Your task to perform on an android device: Go to accessibility settings Image 0: 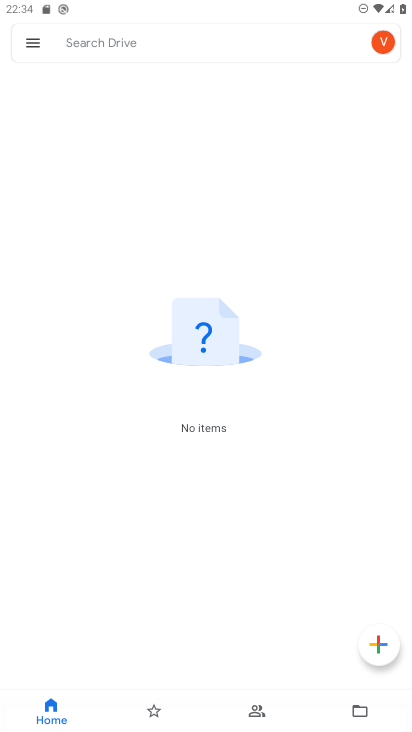
Step 0: press home button
Your task to perform on an android device: Go to accessibility settings Image 1: 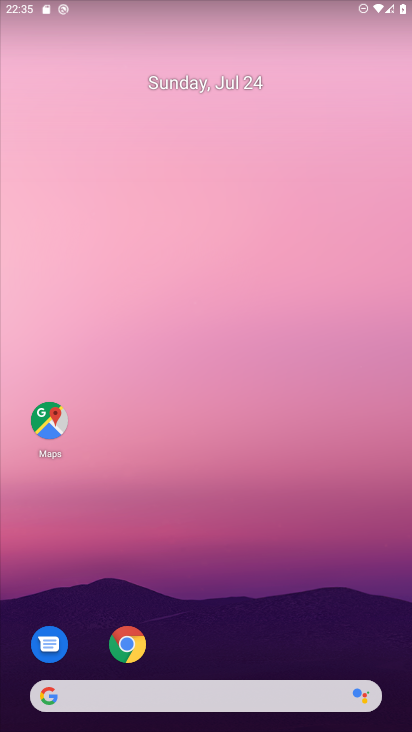
Step 1: drag from (336, 631) to (321, 102)
Your task to perform on an android device: Go to accessibility settings Image 2: 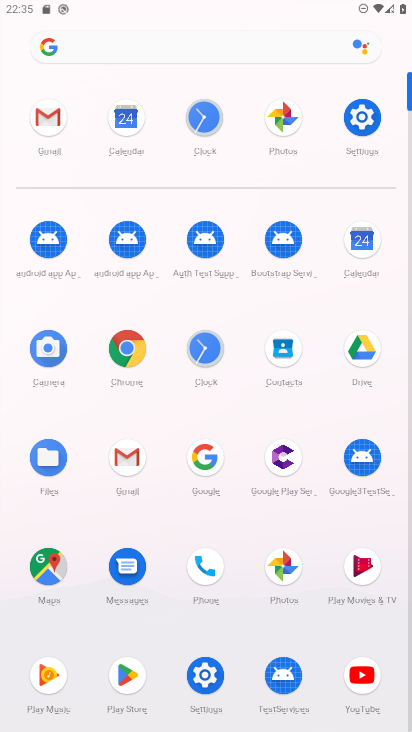
Step 2: click (204, 675)
Your task to perform on an android device: Go to accessibility settings Image 3: 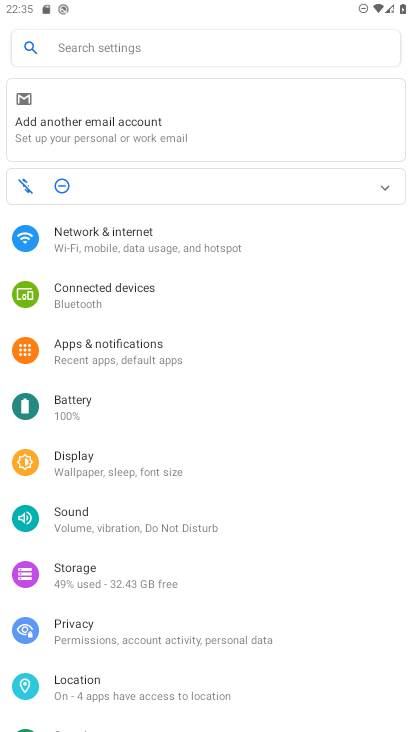
Step 3: drag from (305, 679) to (299, 231)
Your task to perform on an android device: Go to accessibility settings Image 4: 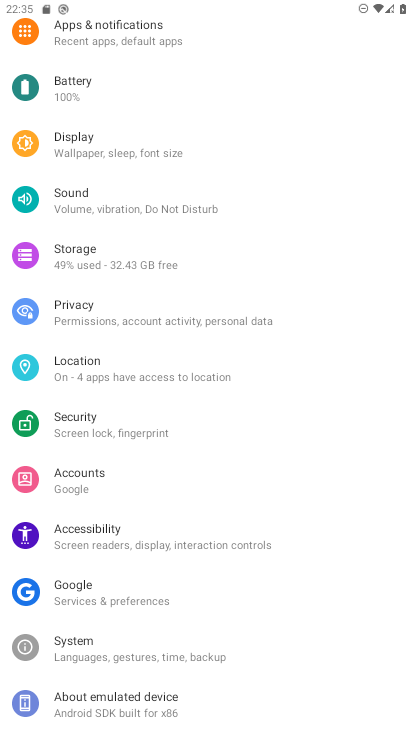
Step 4: click (75, 532)
Your task to perform on an android device: Go to accessibility settings Image 5: 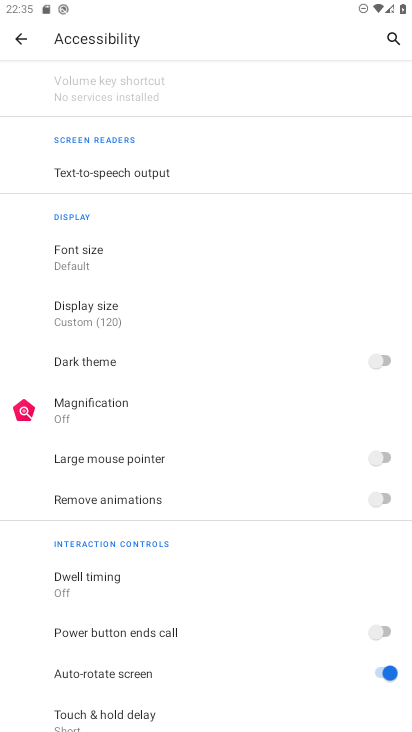
Step 5: task complete